Your task to perform on an android device: turn on translation in the chrome app Image 0: 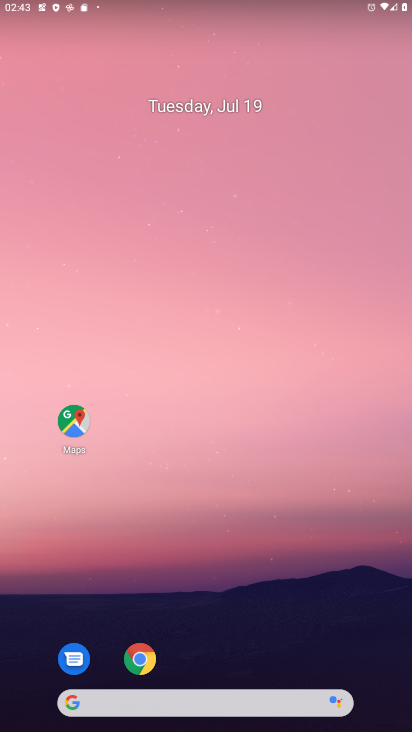
Step 0: press home button
Your task to perform on an android device: turn on translation in the chrome app Image 1: 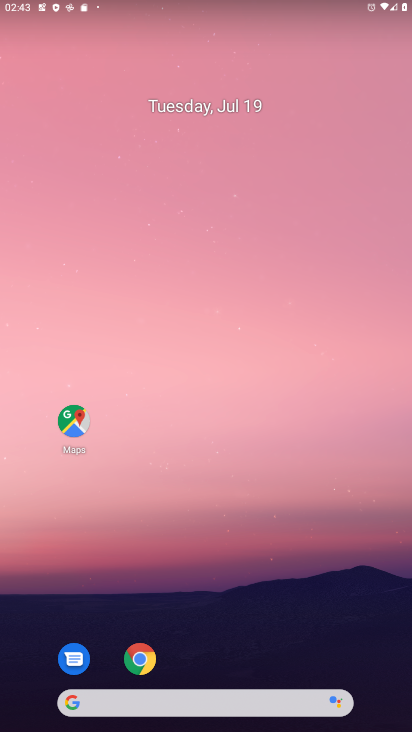
Step 1: click (127, 653)
Your task to perform on an android device: turn on translation in the chrome app Image 2: 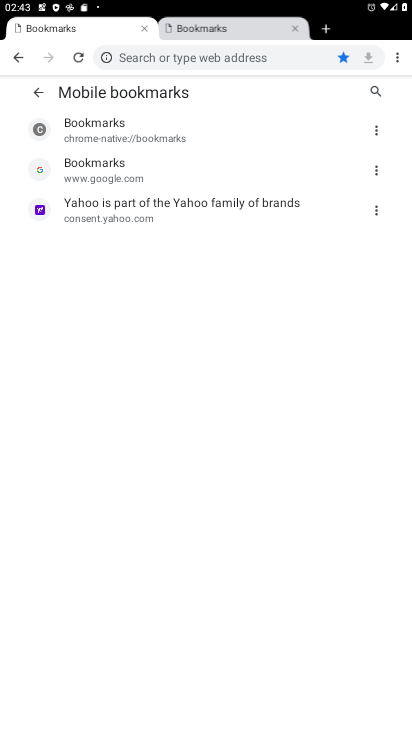
Step 2: drag from (396, 48) to (262, 291)
Your task to perform on an android device: turn on translation in the chrome app Image 3: 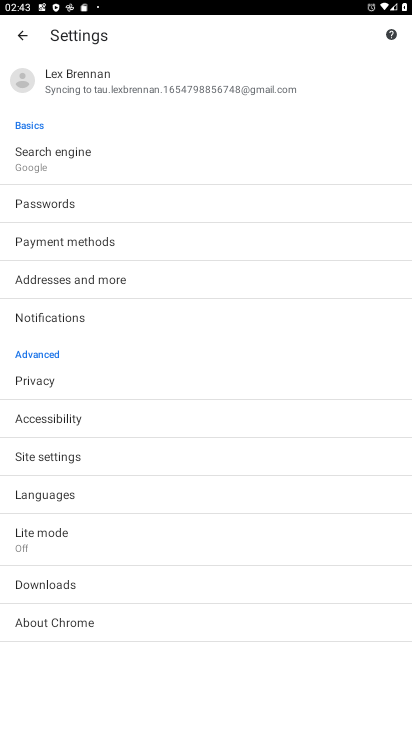
Step 3: click (51, 479)
Your task to perform on an android device: turn on translation in the chrome app Image 4: 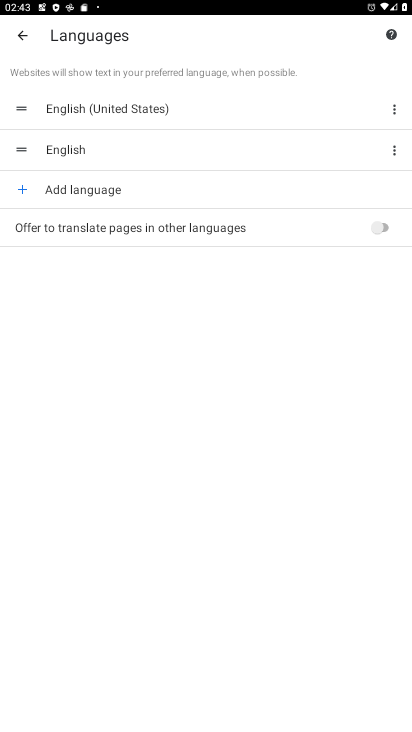
Step 4: click (271, 233)
Your task to perform on an android device: turn on translation in the chrome app Image 5: 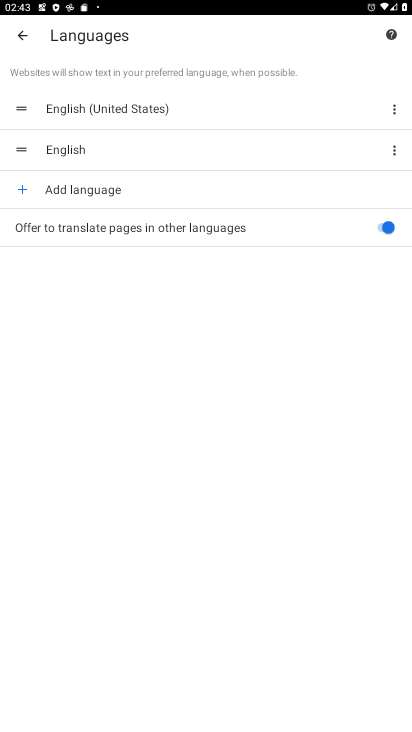
Step 5: task complete